Your task to perform on an android device: search for starred emails in the gmail app Image 0: 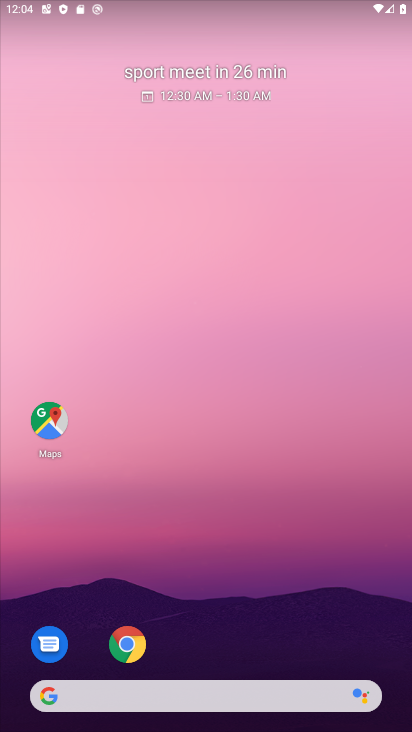
Step 0: drag from (250, 557) to (315, 91)
Your task to perform on an android device: search for starred emails in the gmail app Image 1: 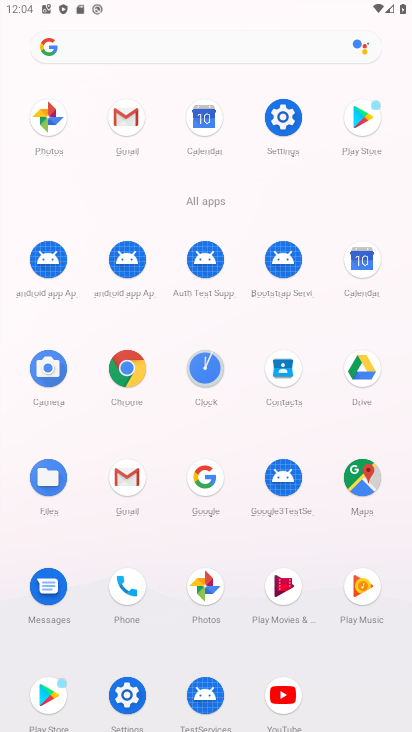
Step 1: click (122, 128)
Your task to perform on an android device: search for starred emails in the gmail app Image 2: 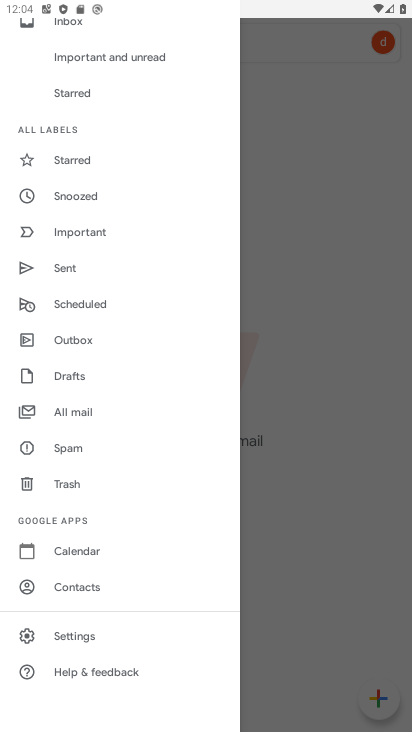
Step 2: click (86, 160)
Your task to perform on an android device: search for starred emails in the gmail app Image 3: 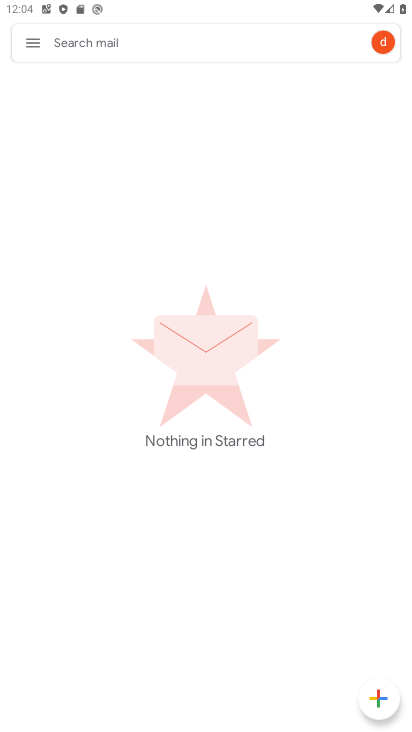
Step 3: task complete